Your task to perform on an android device: Clear all items from cart on costco.com. Search for lg ultragear on costco.com, select the first entry, add it to the cart, then select checkout. Image 0: 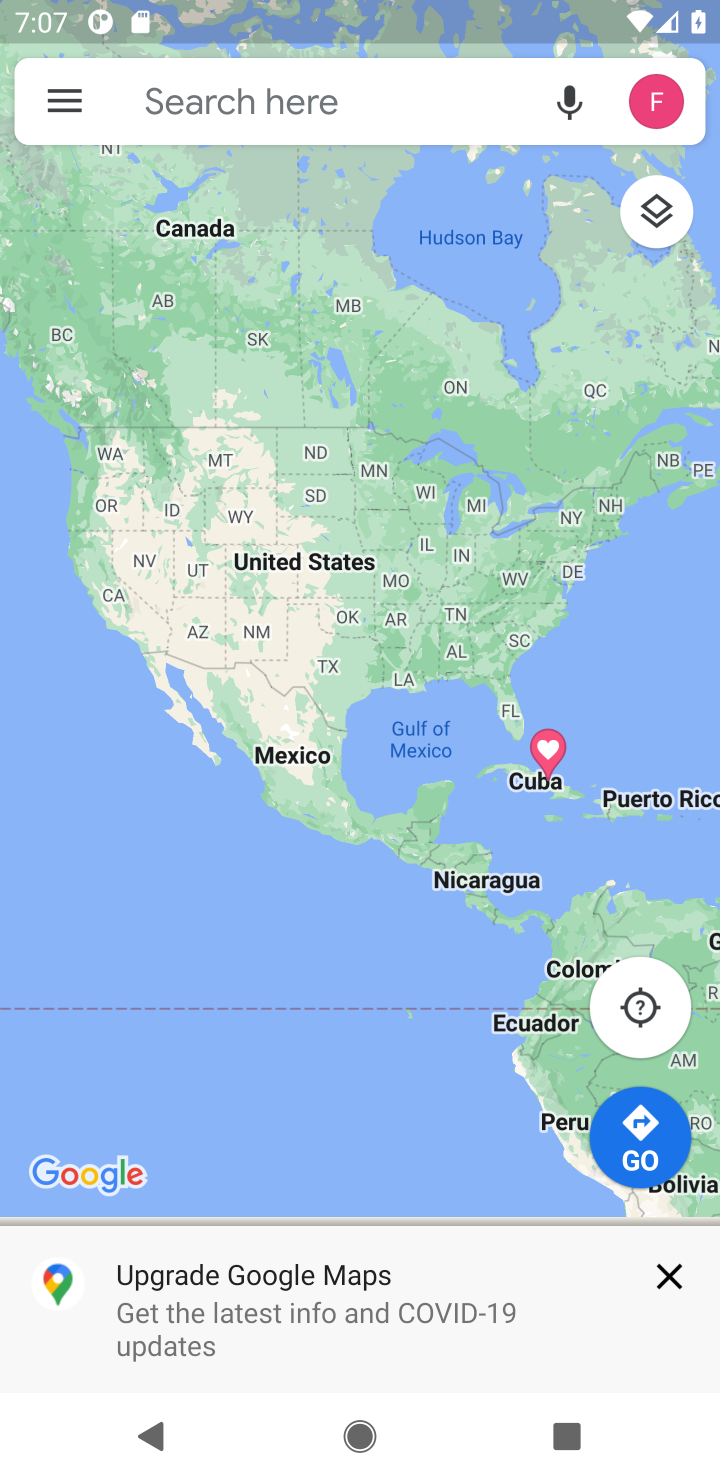
Step 0: press home button
Your task to perform on an android device: Clear all items from cart on costco.com. Search for lg ultragear on costco.com, select the first entry, add it to the cart, then select checkout. Image 1: 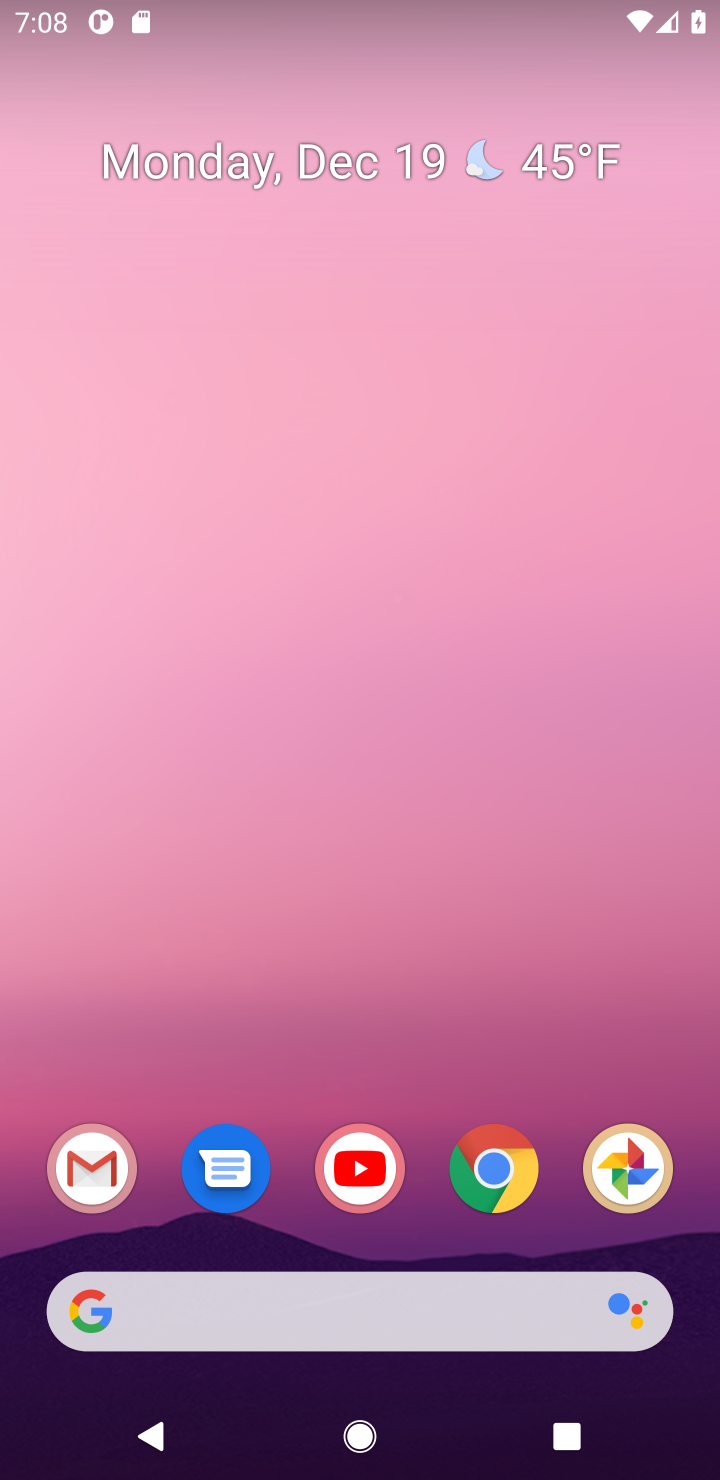
Step 1: click (489, 1171)
Your task to perform on an android device: Clear all items from cart on costco.com. Search for lg ultragear on costco.com, select the first entry, add it to the cart, then select checkout. Image 2: 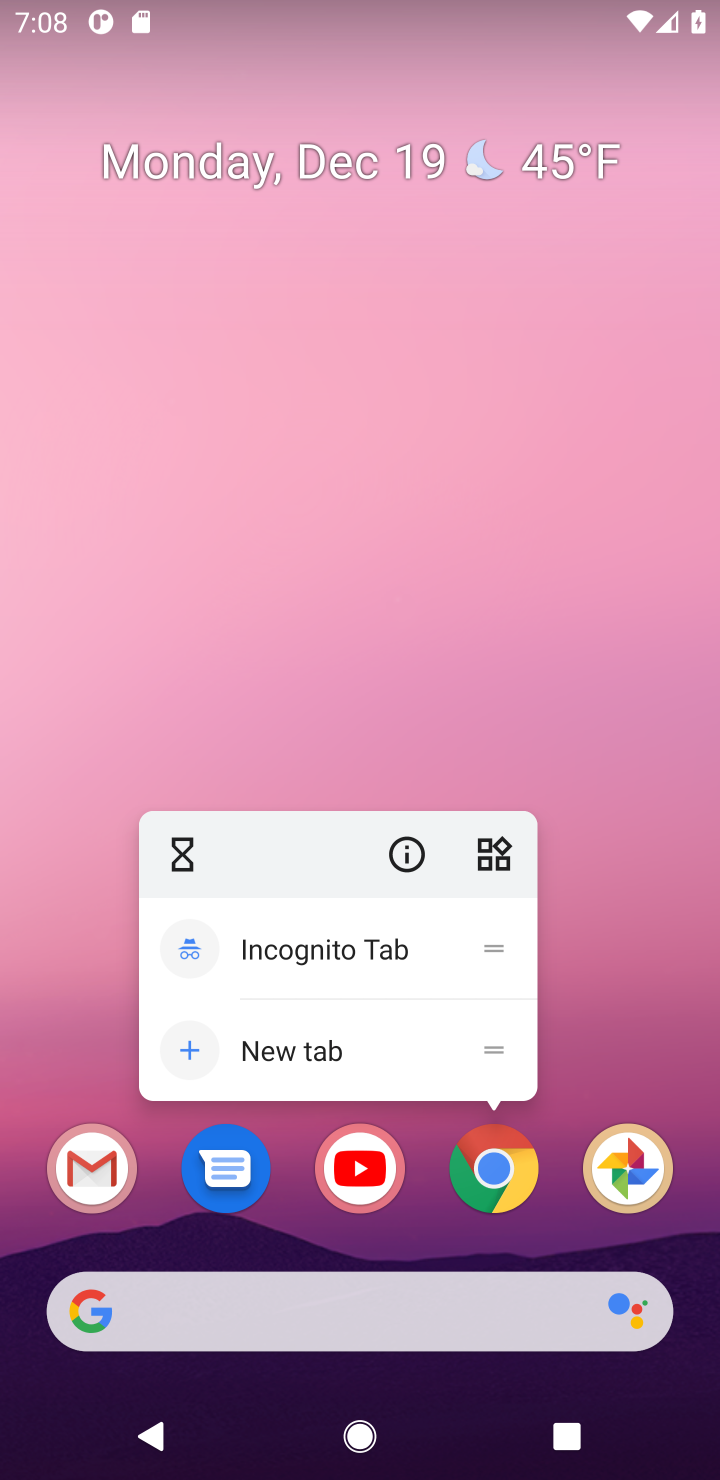
Step 2: click (489, 1171)
Your task to perform on an android device: Clear all items from cart on costco.com. Search for lg ultragear on costco.com, select the first entry, add it to the cart, then select checkout. Image 3: 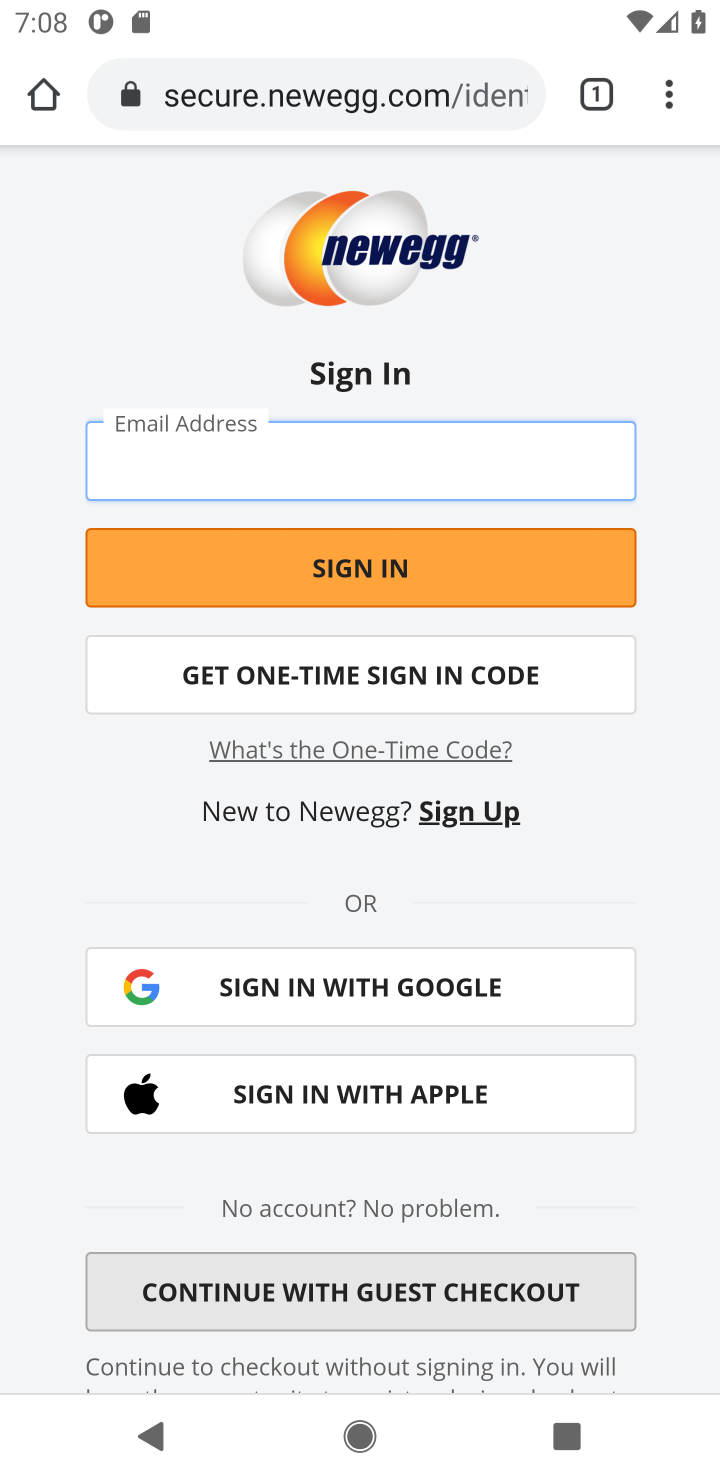
Step 3: click (314, 105)
Your task to perform on an android device: Clear all items from cart on costco.com. Search for lg ultragear on costco.com, select the first entry, add it to the cart, then select checkout. Image 4: 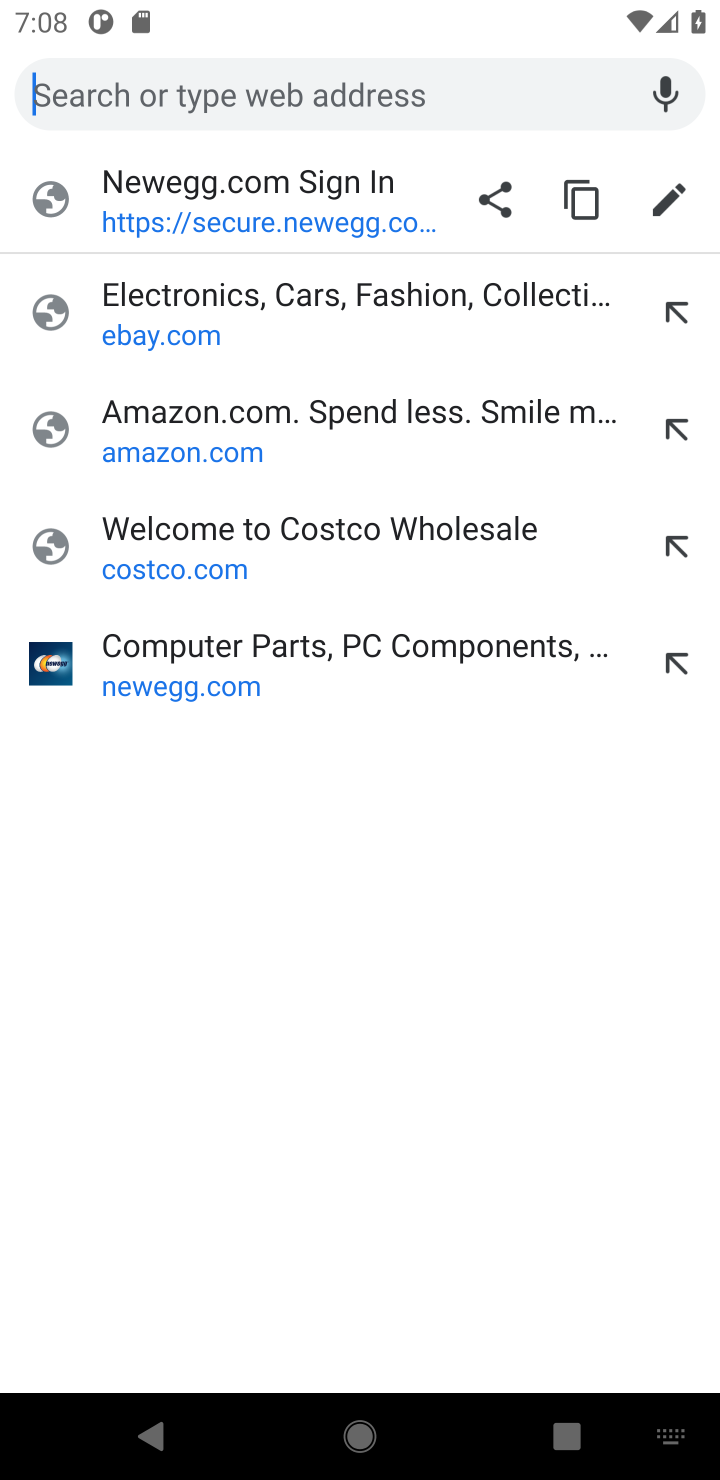
Step 4: click (176, 544)
Your task to perform on an android device: Clear all items from cart on costco.com. Search for lg ultragear on costco.com, select the first entry, add it to the cart, then select checkout. Image 5: 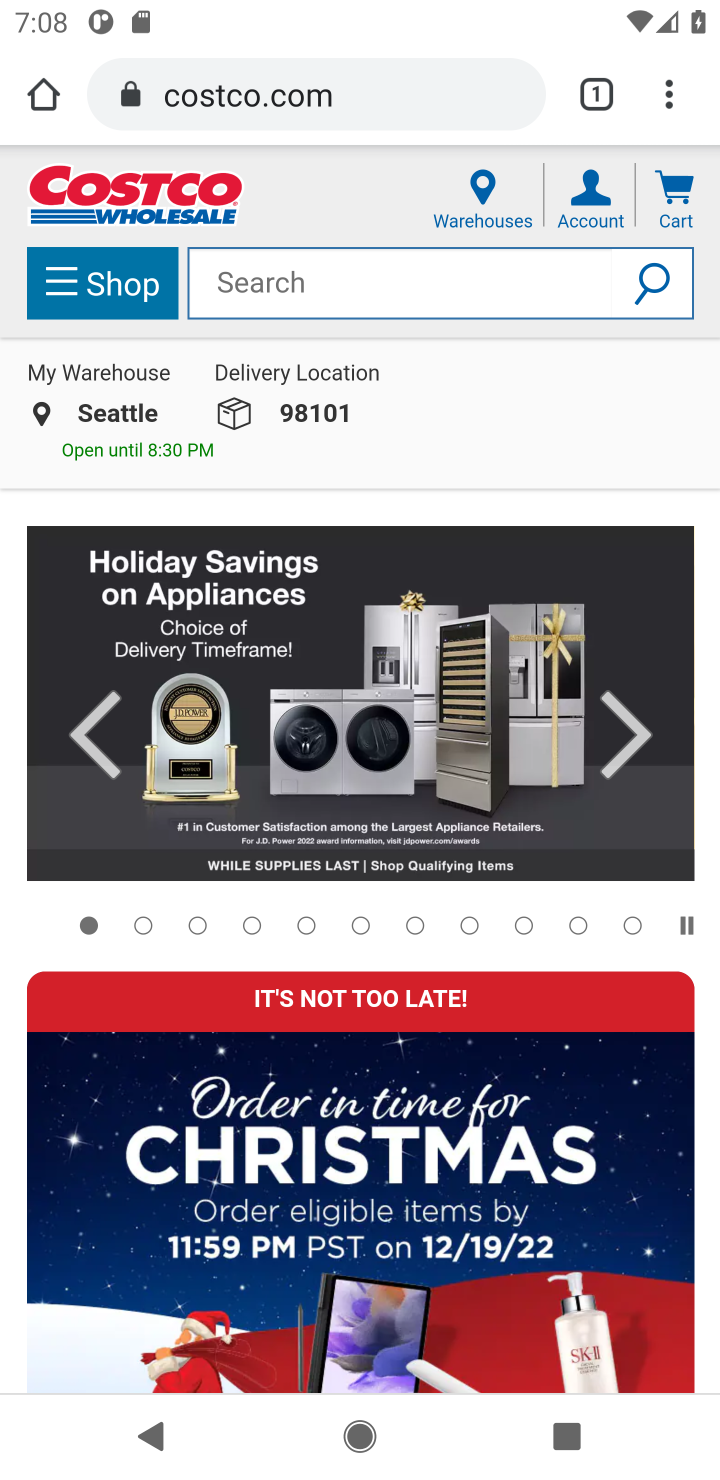
Step 5: click (672, 198)
Your task to perform on an android device: Clear all items from cart on costco.com. Search for lg ultragear on costco.com, select the first entry, add it to the cart, then select checkout. Image 6: 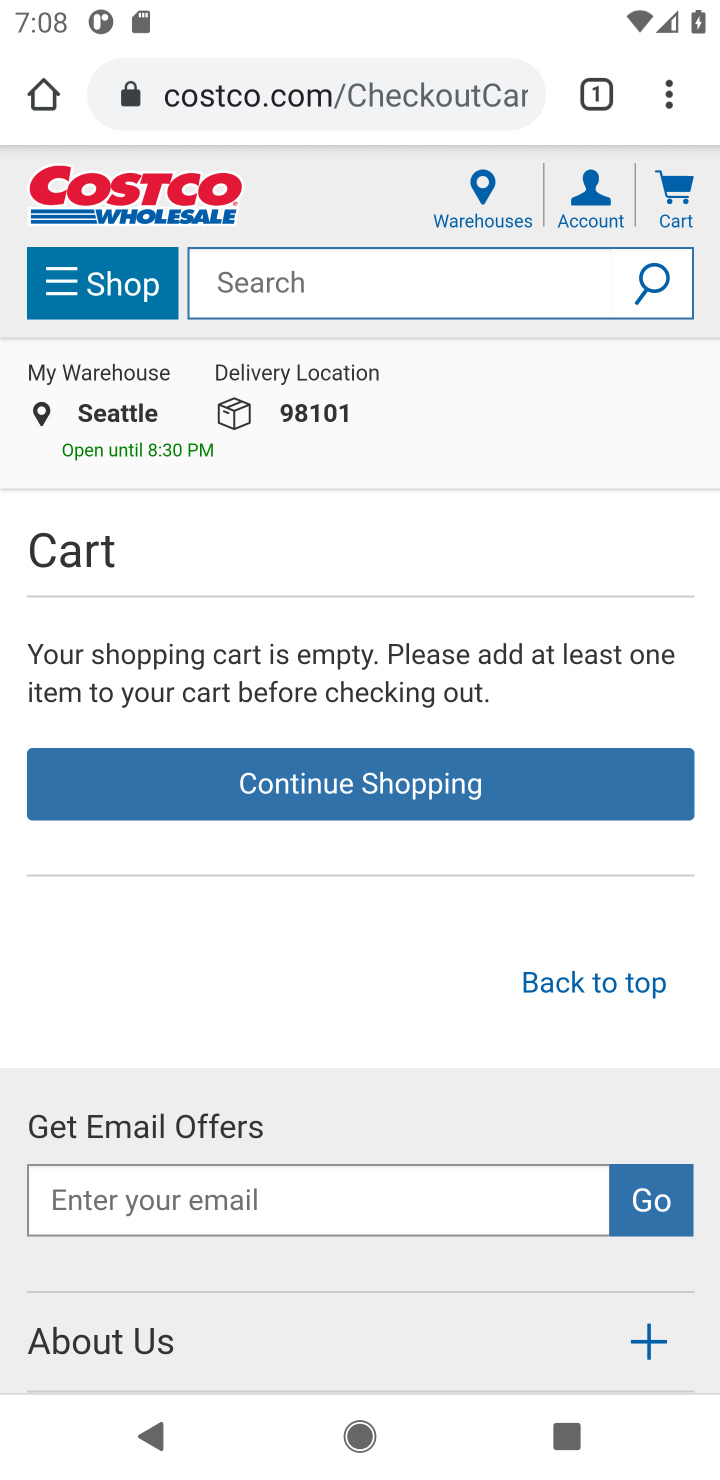
Step 6: click (256, 288)
Your task to perform on an android device: Clear all items from cart on costco.com. Search for lg ultragear on costco.com, select the first entry, add it to the cart, then select checkout. Image 7: 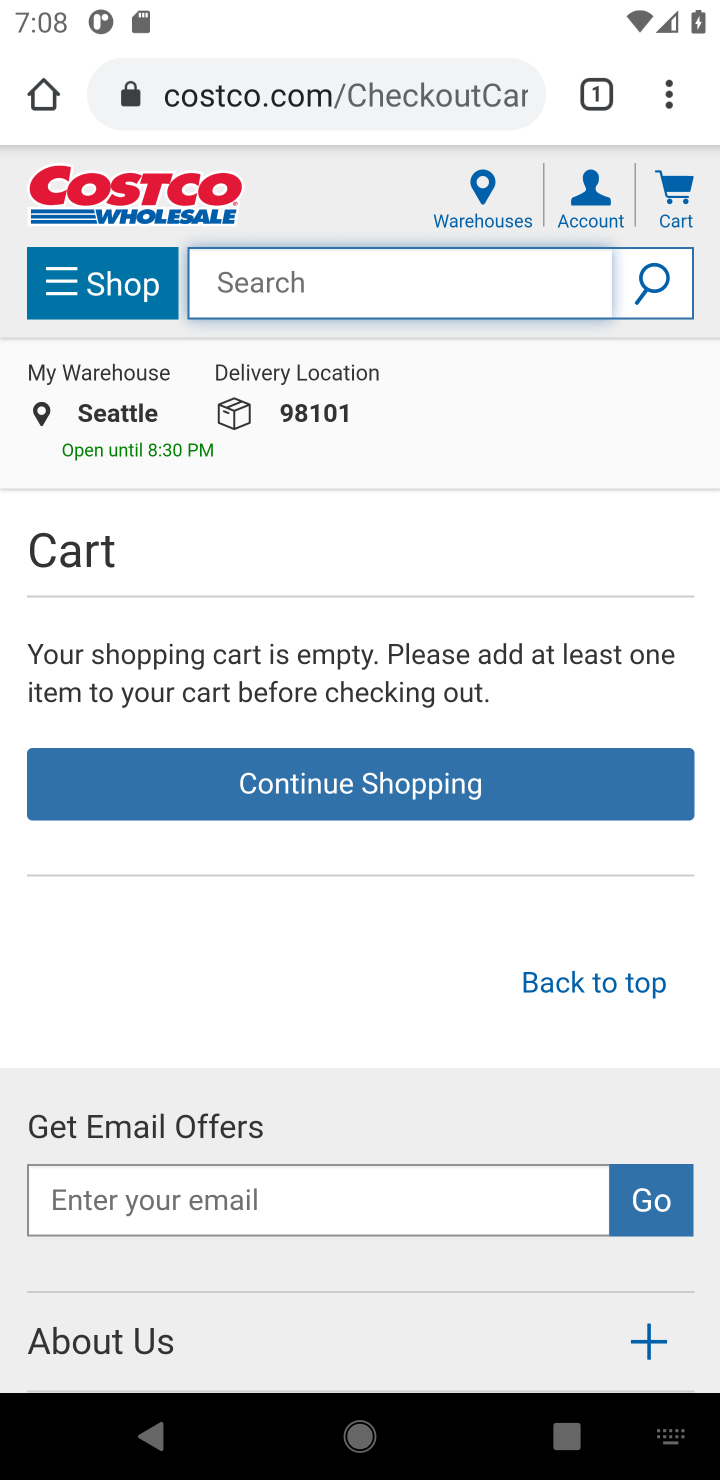
Step 7: type " lg ultragear "
Your task to perform on an android device: Clear all items from cart on costco.com. Search for lg ultragear on costco.com, select the first entry, add it to the cart, then select checkout. Image 8: 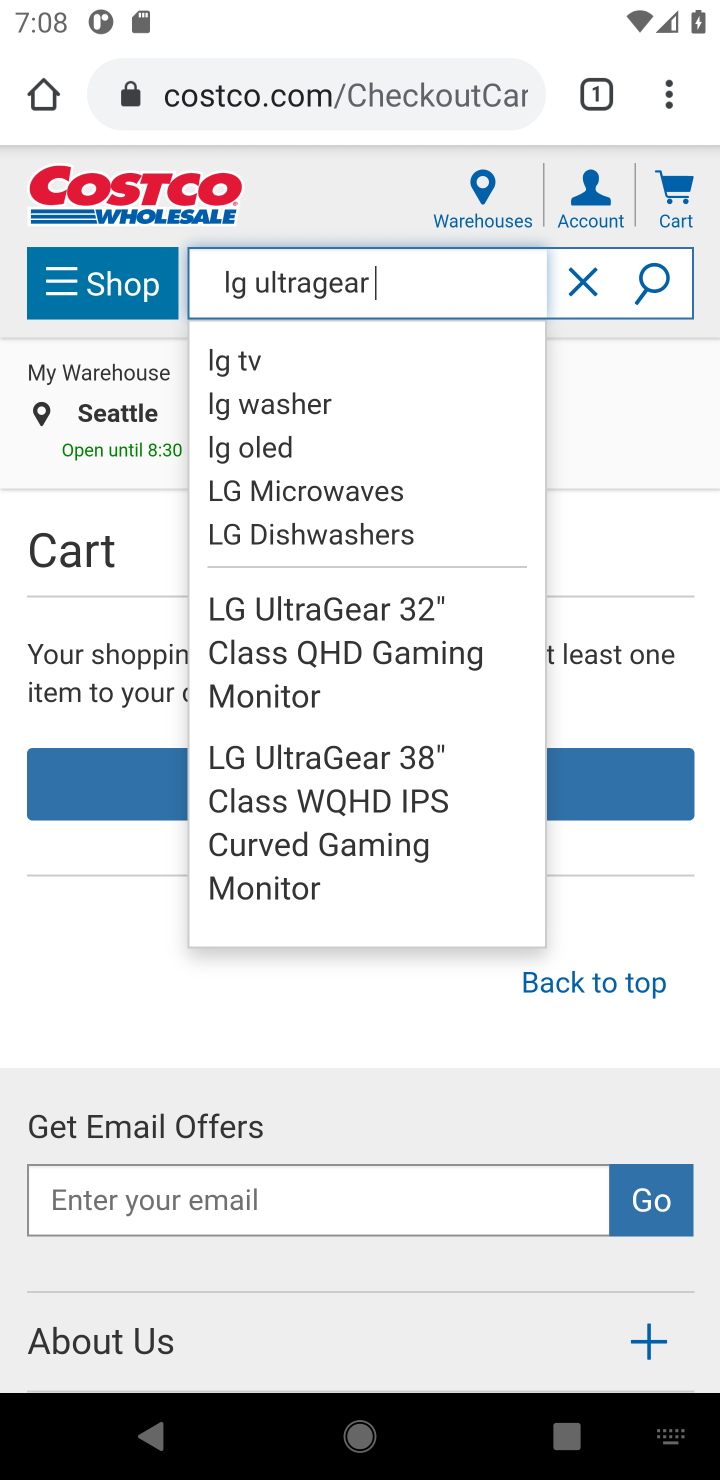
Step 8: click (643, 296)
Your task to perform on an android device: Clear all items from cart on costco.com. Search for lg ultragear on costco.com, select the first entry, add it to the cart, then select checkout. Image 9: 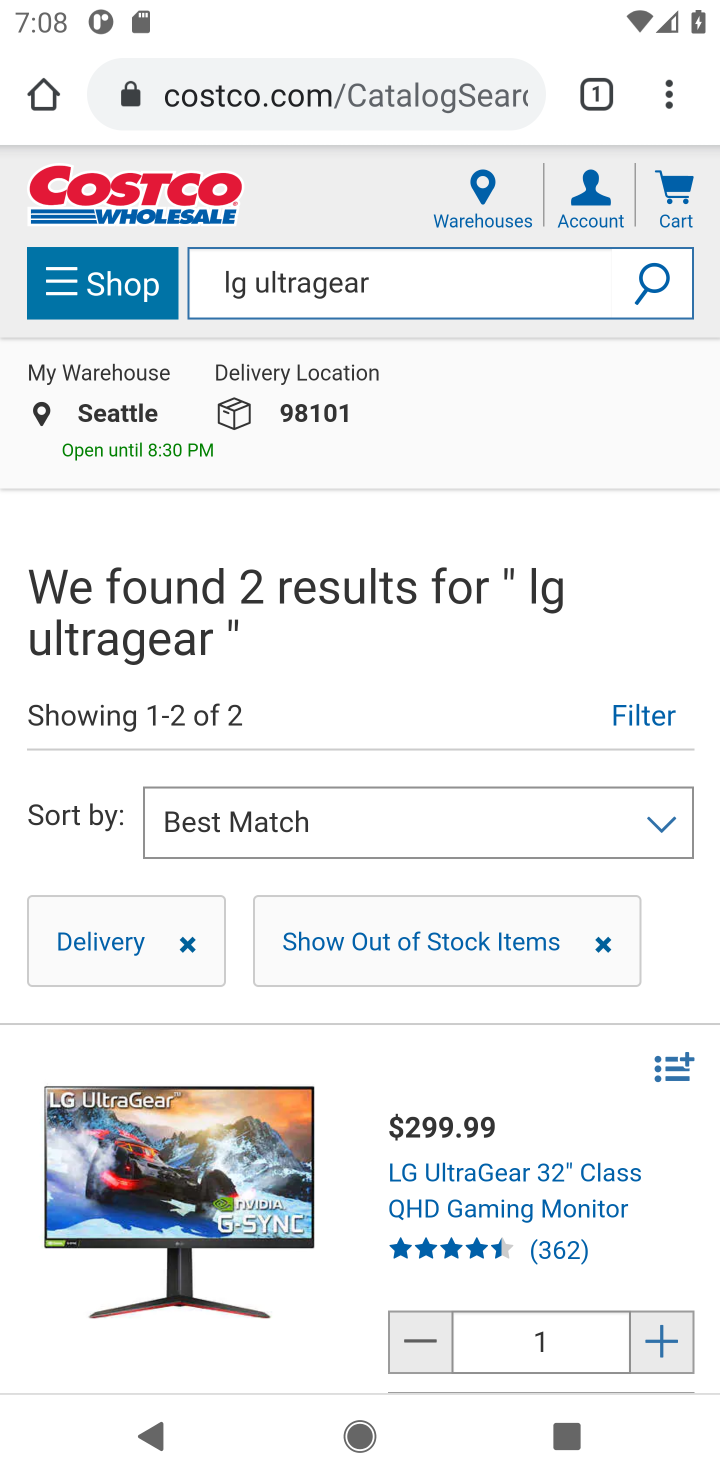
Step 9: drag from (360, 974) to (410, 646)
Your task to perform on an android device: Clear all items from cart on costco.com. Search for lg ultragear on costco.com, select the first entry, add it to the cart, then select checkout. Image 10: 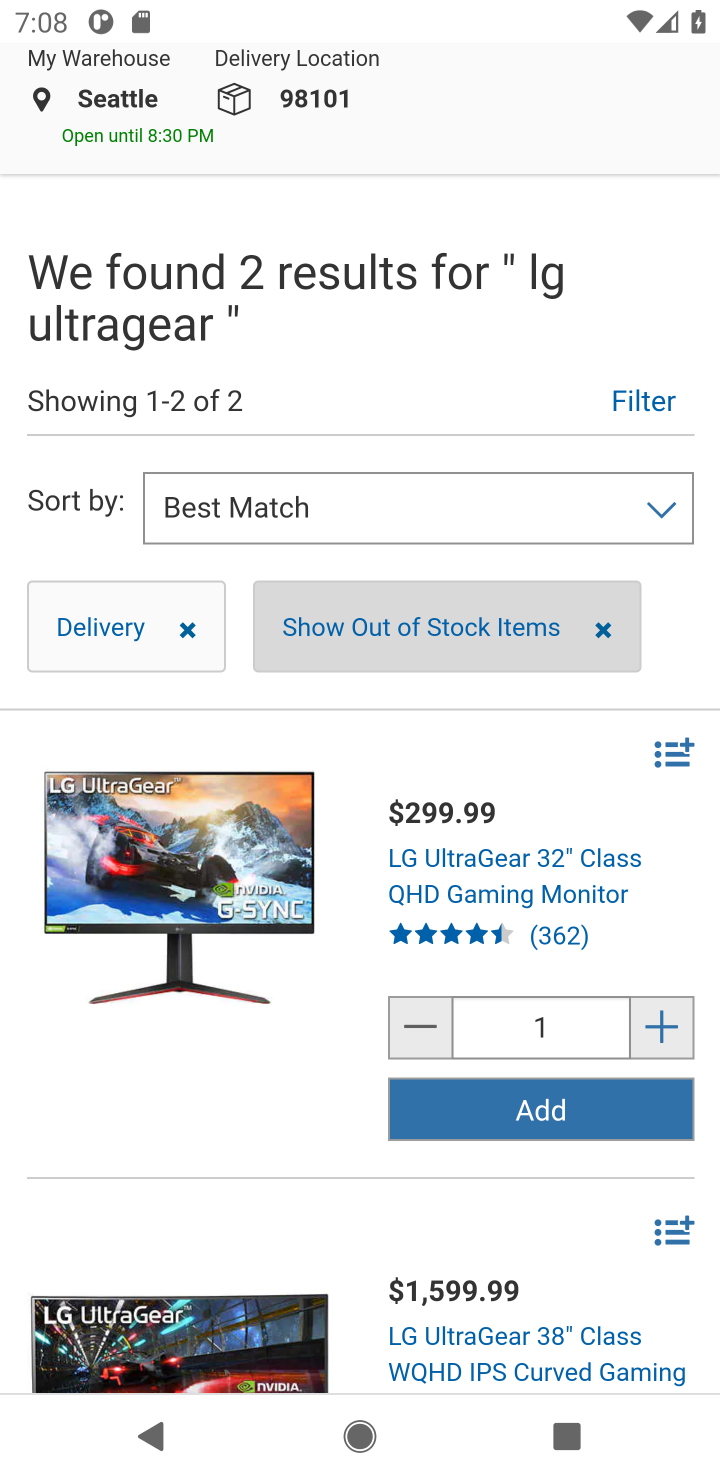
Step 10: click (549, 1111)
Your task to perform on an android device: Clear all items from cart on costco.com. Search for lg ultragear on costco.com, select the first entry, add it to the cart, then select checkout. Image 11: 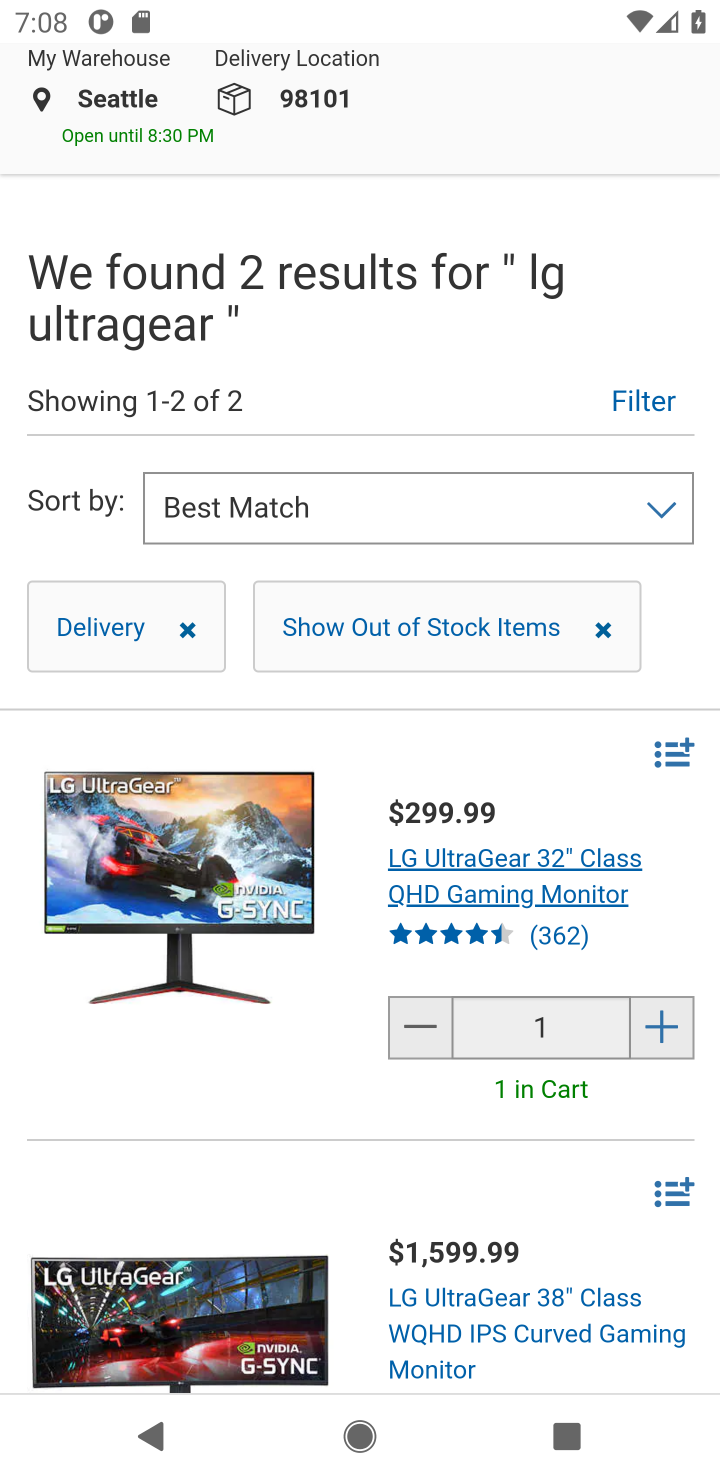
Step 11: drag from (425, 387) to (404, 757)
Your task to perform on an android device: Clear all items from cart on costco.com. Search for lg ultragear on costco.com, select the first entry, add it to the cart, then select checkout. Image 12: 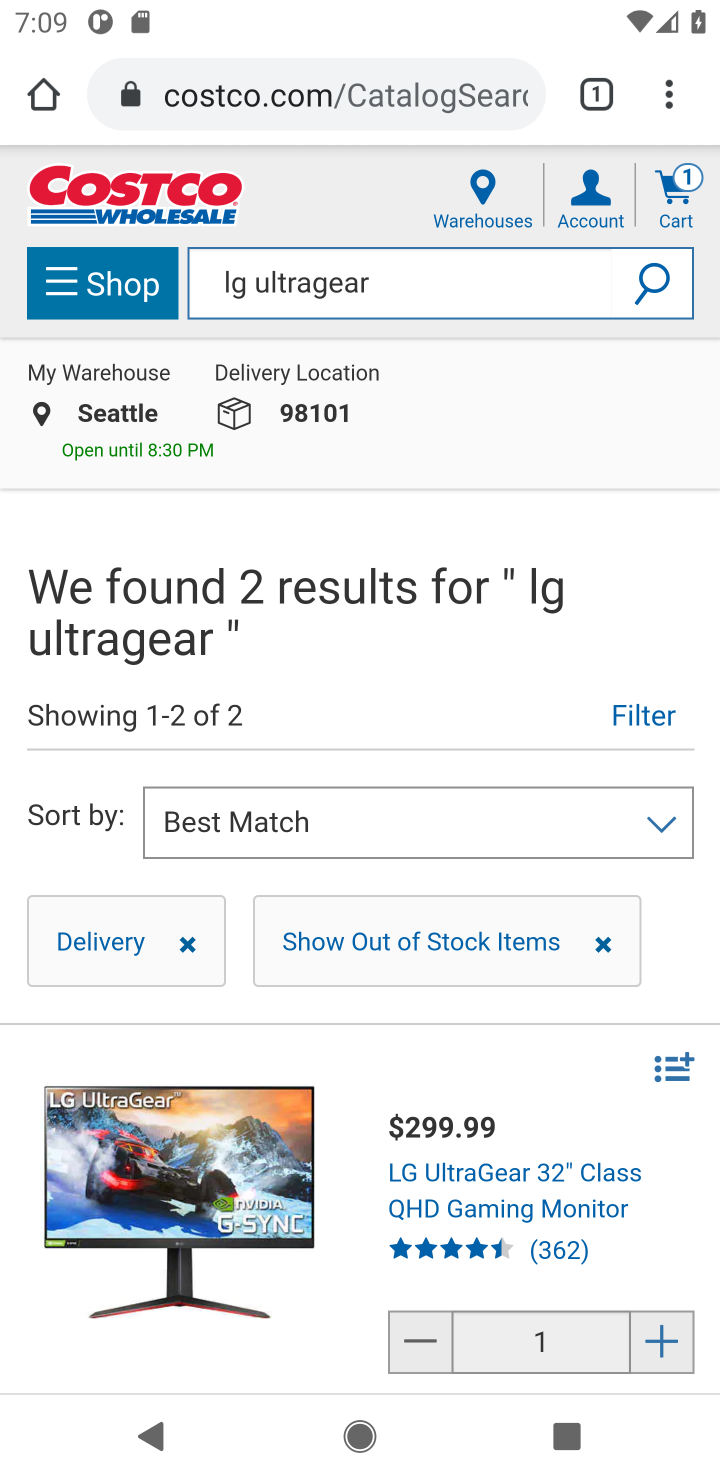
Step 12: click (677, 207)
Your task to perform on an android device: Clear all items from cart on costco.com. Search for lg ultragear on costco.com, select the first entry, add it to the cart, then select checkout. Image 13: 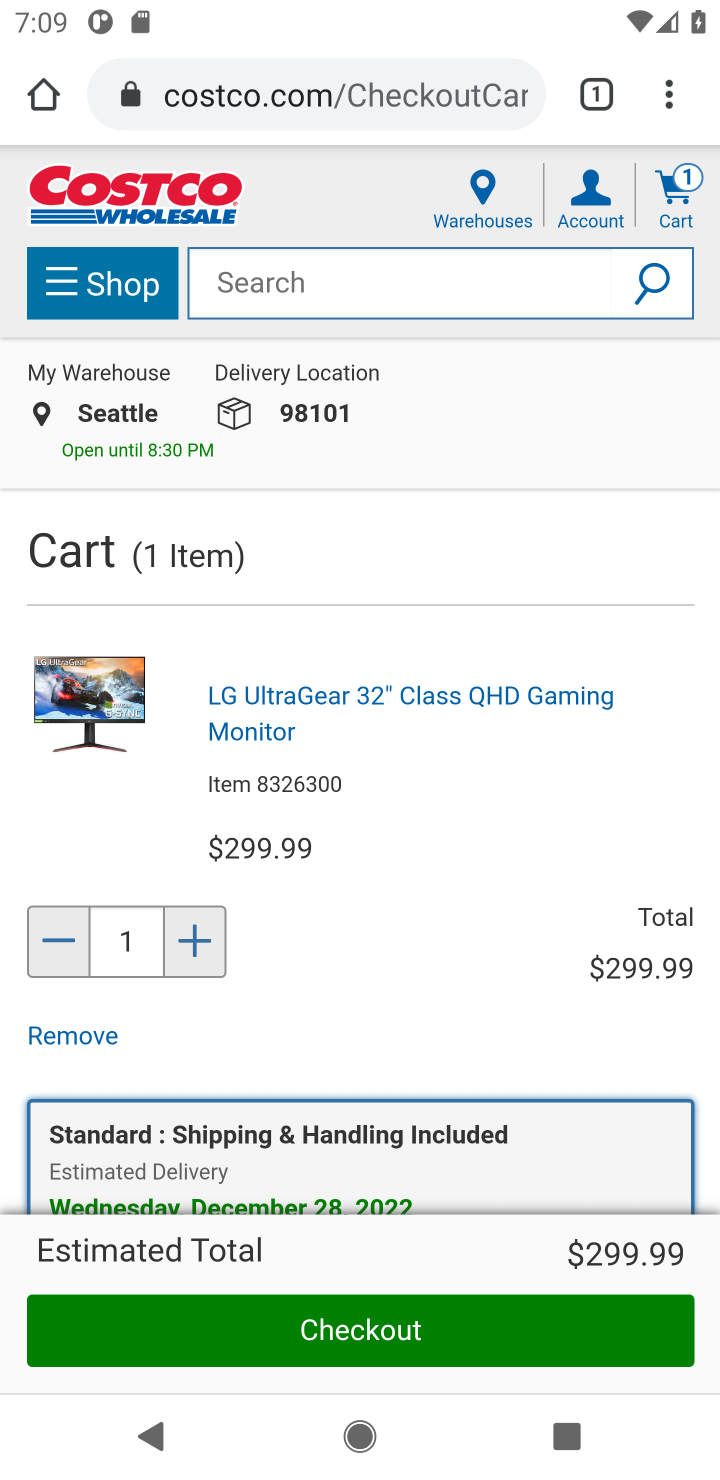
Step 13: click (340, 1364)
Your task to perform on an android device: Clear all items from cart on costco.com. Search for lg ultragear on costco.com, select the first entry, add it to the cart, then select checkout. Image 14: 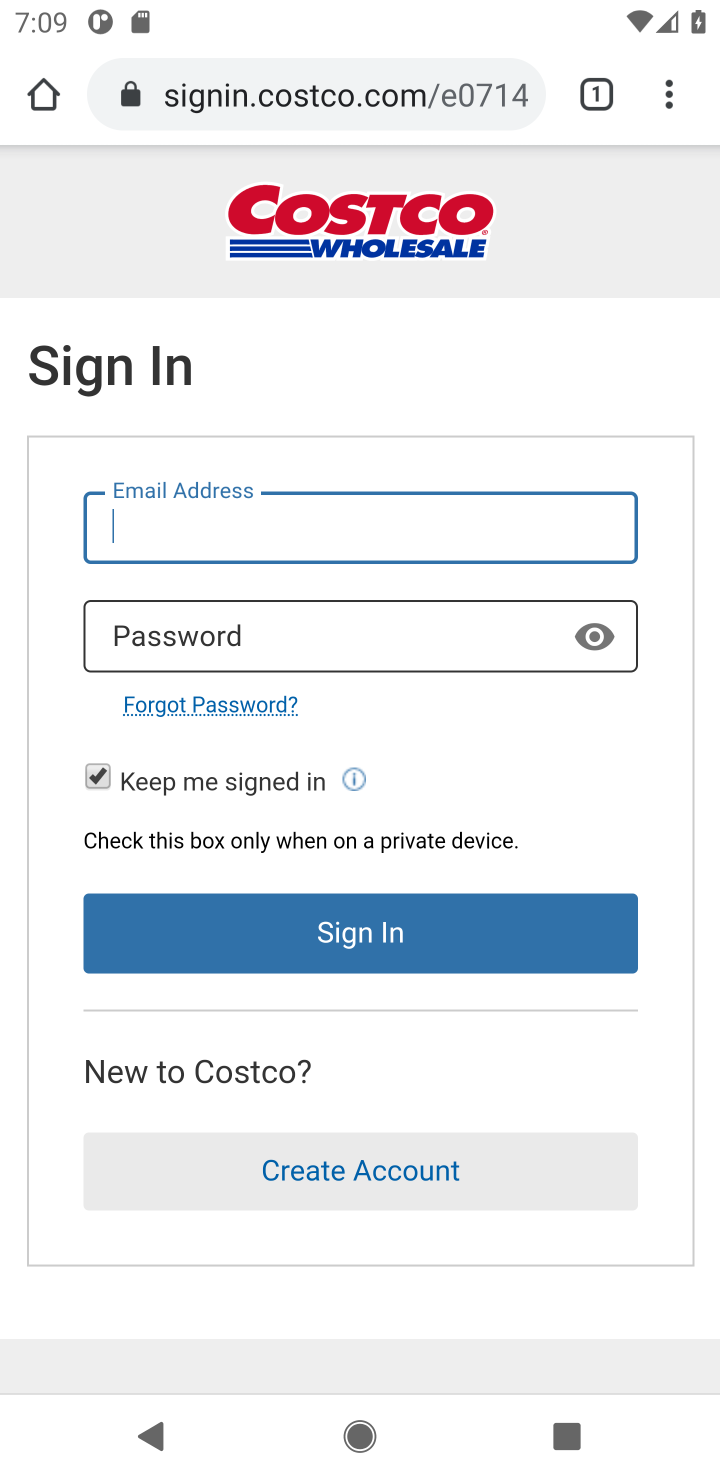
Step 14: task complete